Your task to perform on an android device: Look up the new steph curry shoes Image 0: 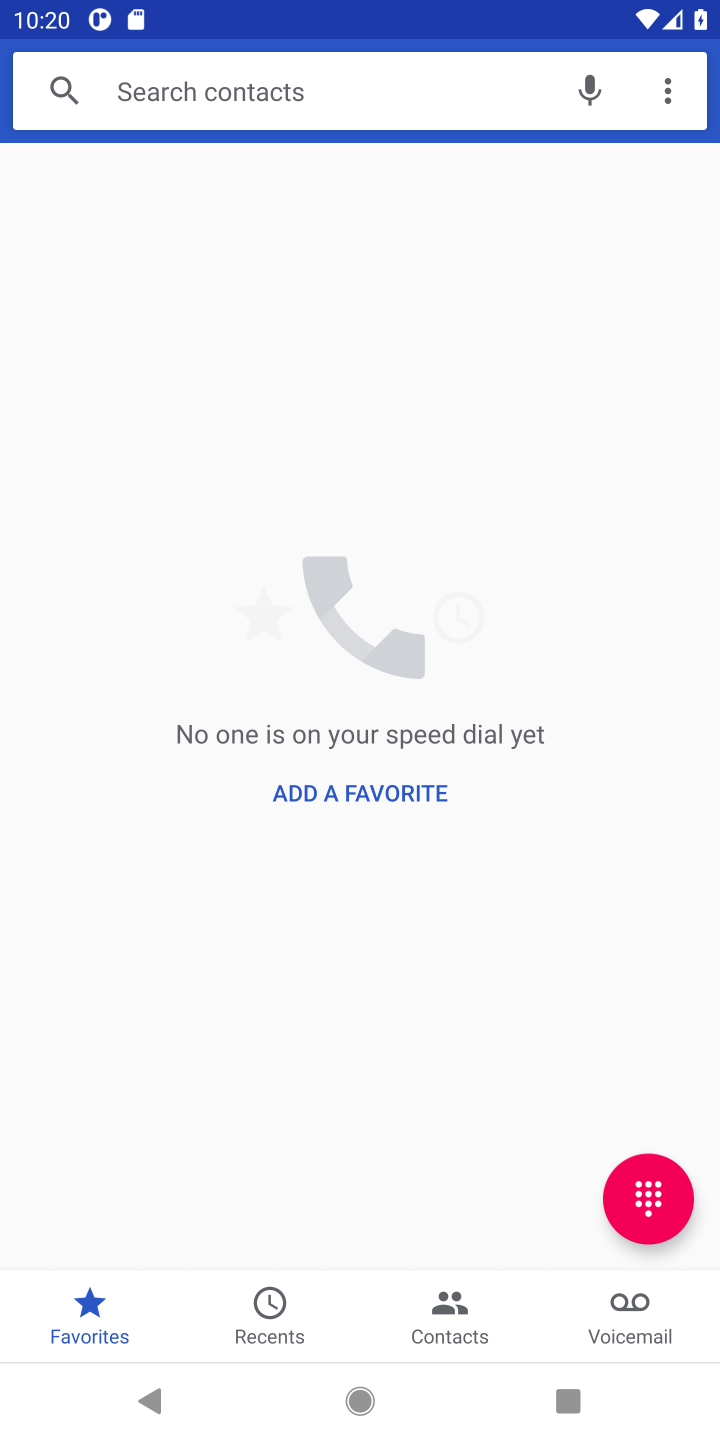
Step 0: press home button
Your task to perform on an android device: Look up the new steph curry shoes Image 1: 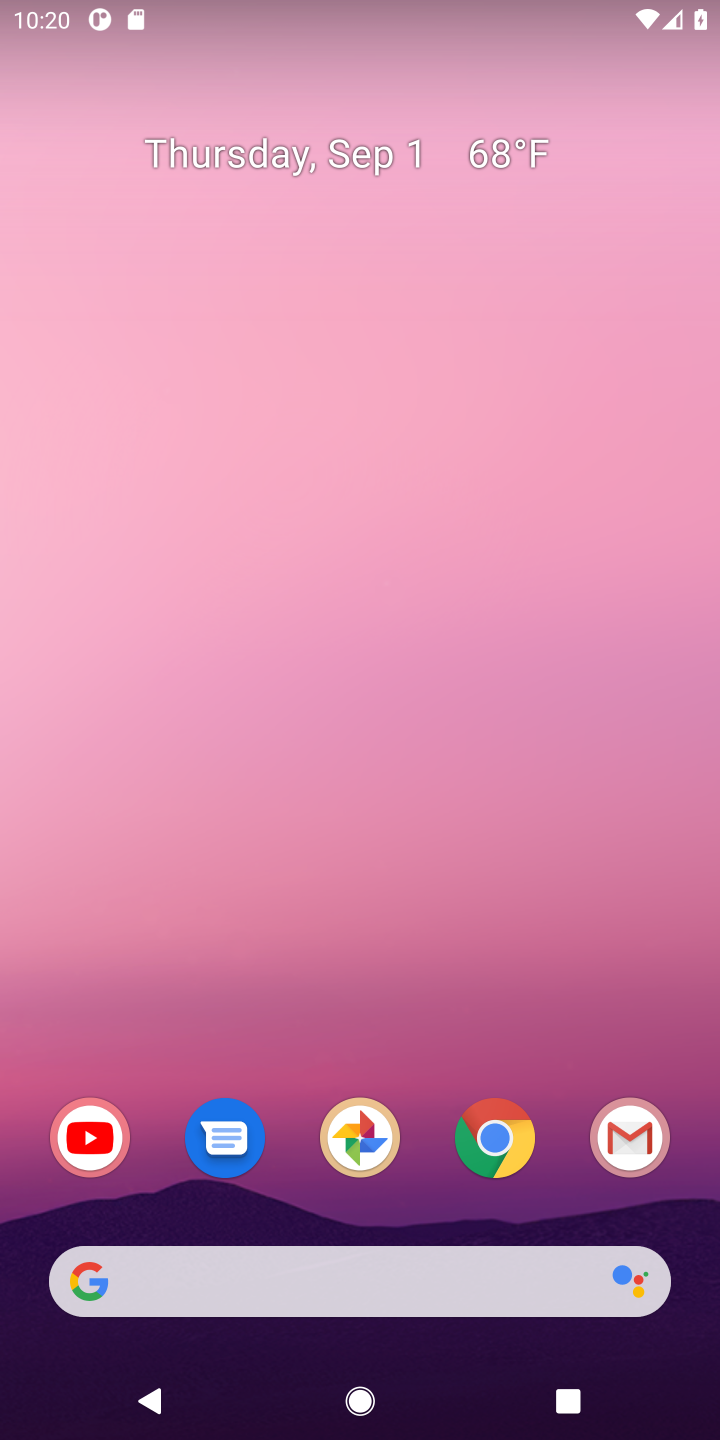
Step 1: click (280, 1262)
Your task to perform on an android device: Look up the new steph curry shoes Image 2: 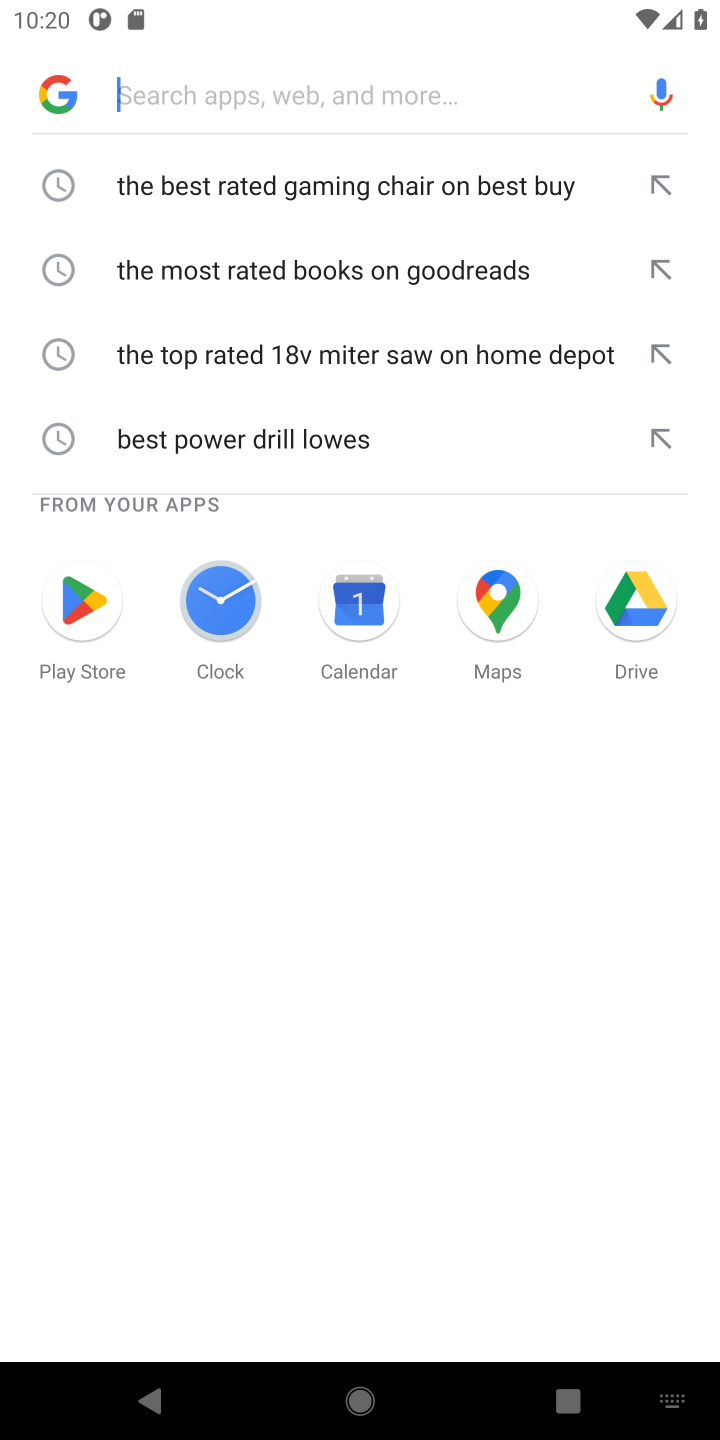
Step 2: type " the new steph curry shoes"
Your task to perform on an android device: Look up the new steph curry shoes Image 3: 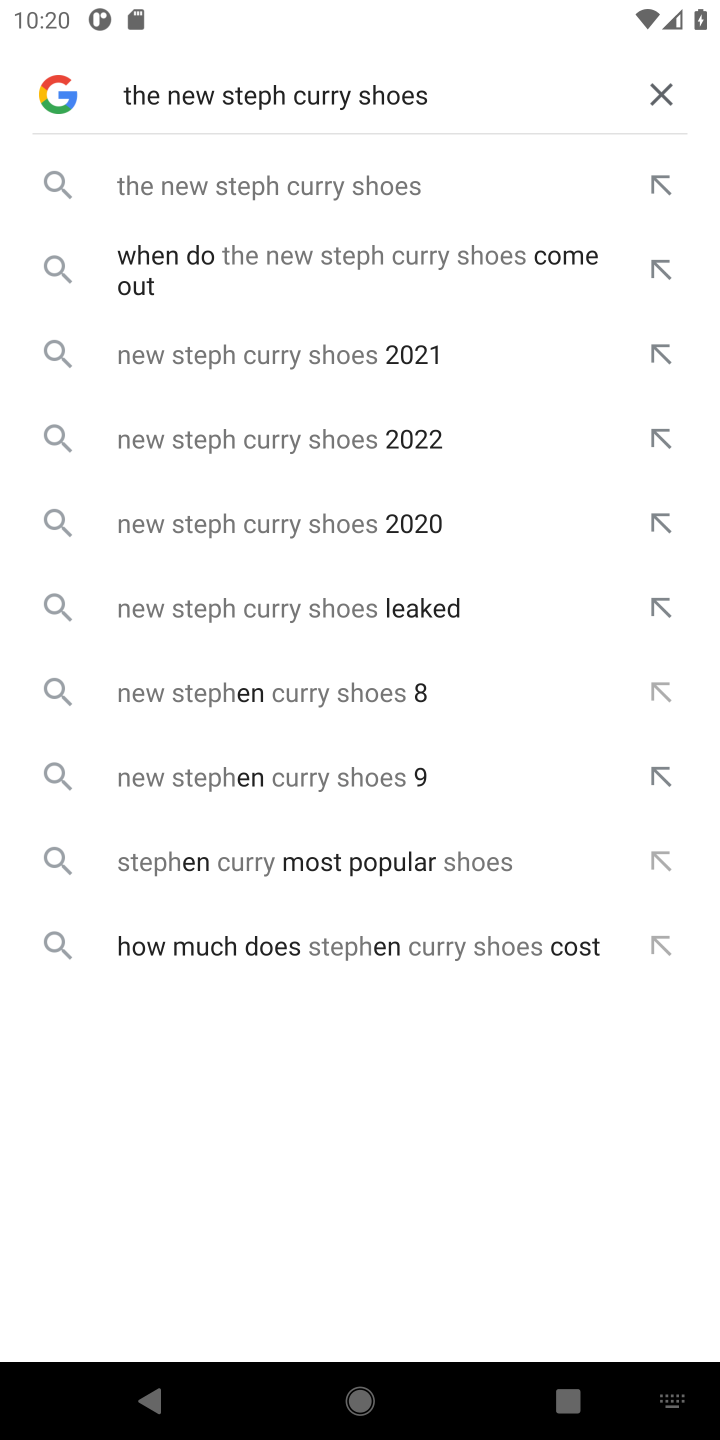
Step 3: click (404, 194)
Your task to perform on an android device: Look up the new steph curry shoes Image 4: 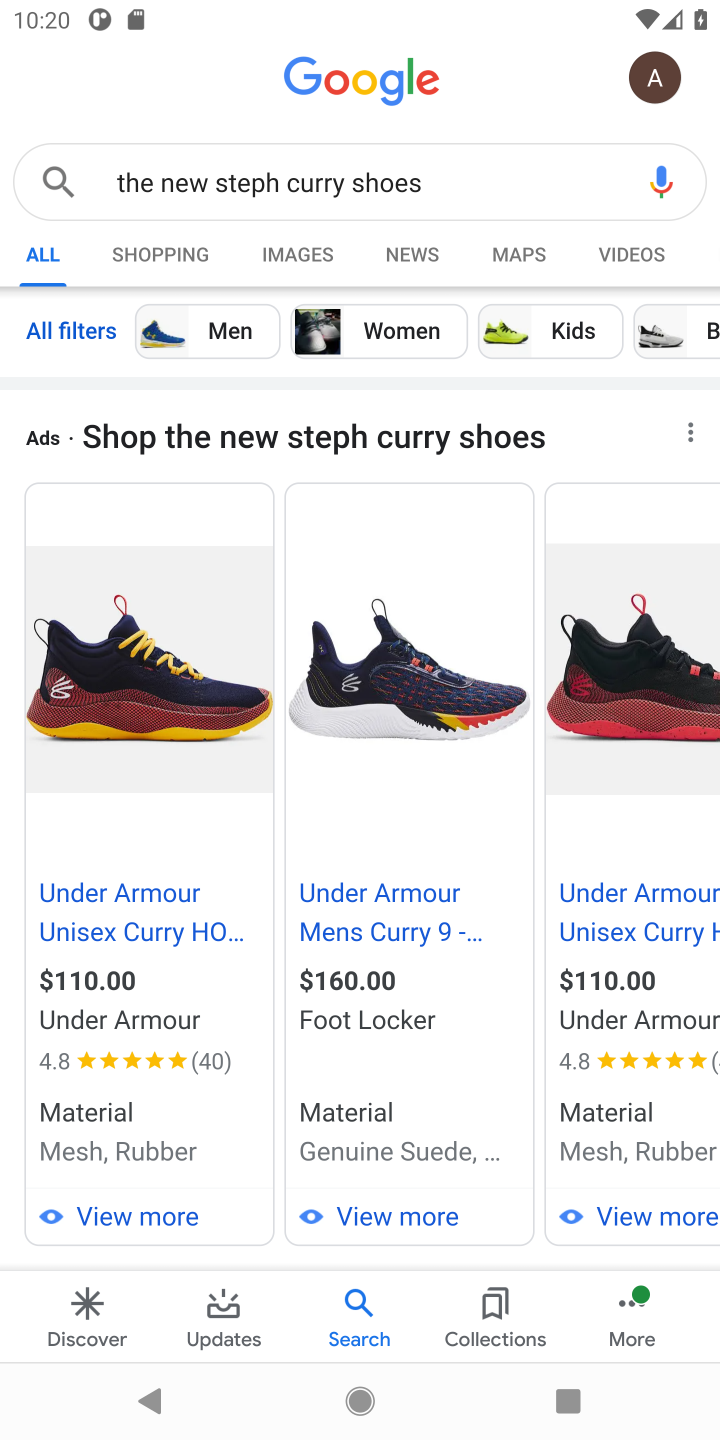
Step 4: task complete